Your task to perform on an android device: visit the assistant section in the google photos Image 0: 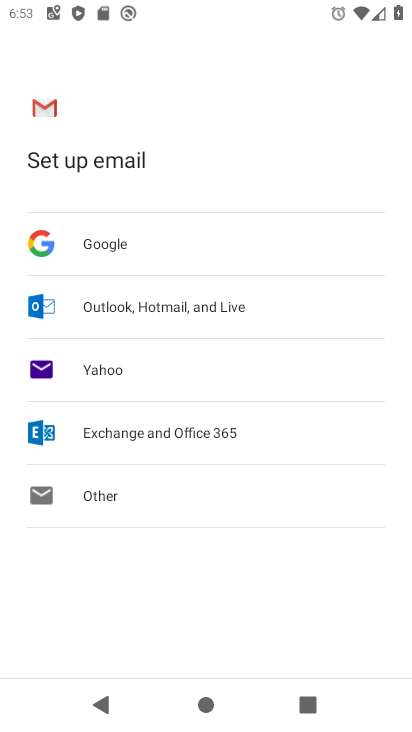
Step 0: press home button
Your task to perform on an android device: visit the assistant section in the google photos Image 1: 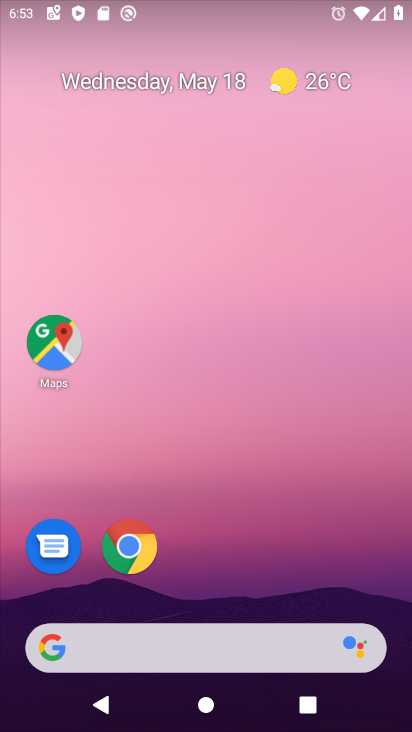
Step 1: drag from (328, 610) to (247, 72)
Your task to perform on an android device: visit the assistant section in the google photos Image 2: 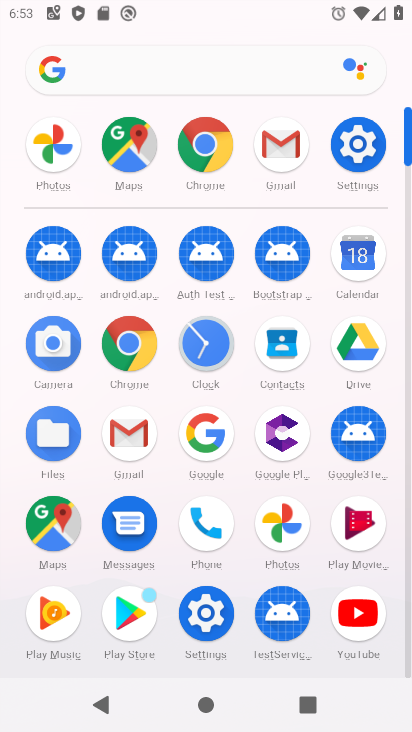
Step 2: click (292, 531)
Your task to perform on an android device: visit the assistant section in the google photos Image 3: 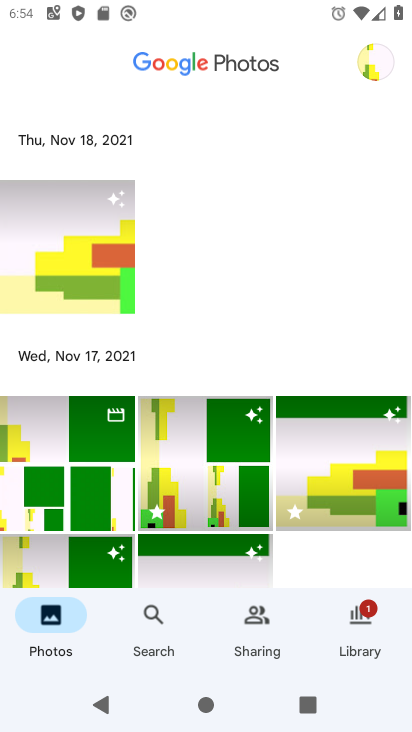
Step 3: task complete